Your task to perform on an android device: check out phone information Image 0: 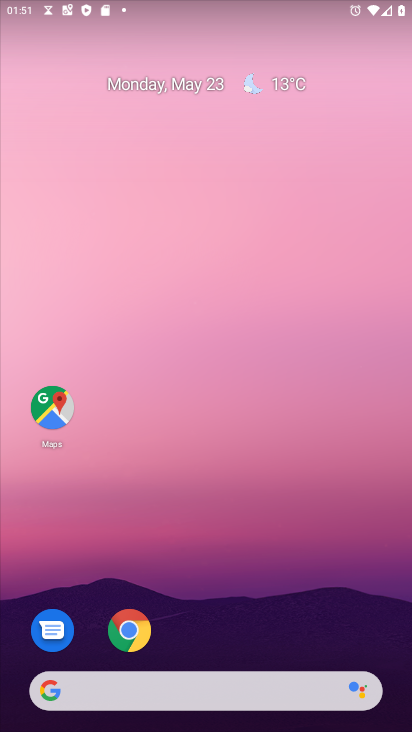
Step 0: drag from (303, 600) to (165, 21)
Your task to perform on an android device: check out phone information Image 1: 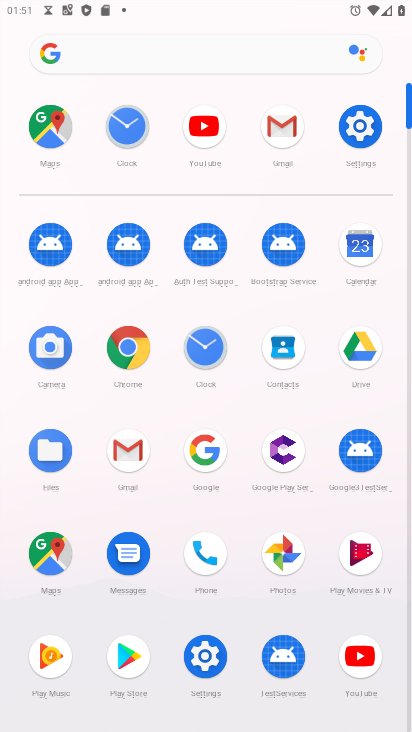
Step 1: click (201, 645)
Your task to perform on an android device: check out phone information Image 2: 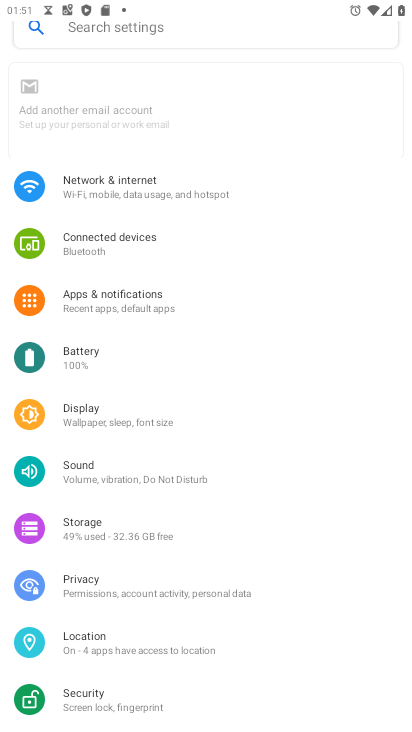
Step 2: drag from (234, 656) to (179, 56)
Your task to perform on an android device: check out phone information Image 3: 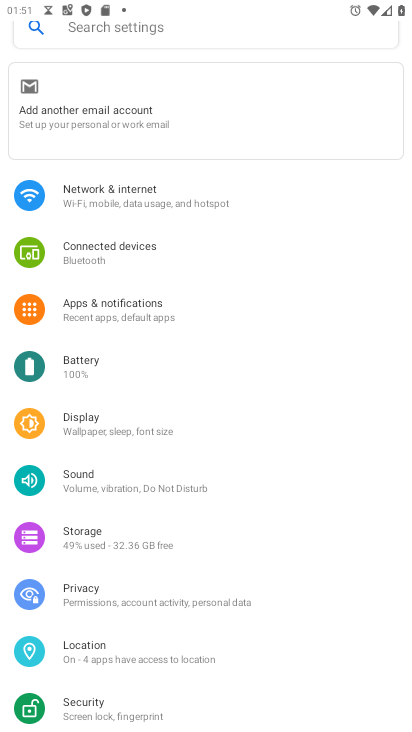
Step 3: drag from (225, 555) to (214, 131)
Your task to perform on an android device: check out phone information Image 4: 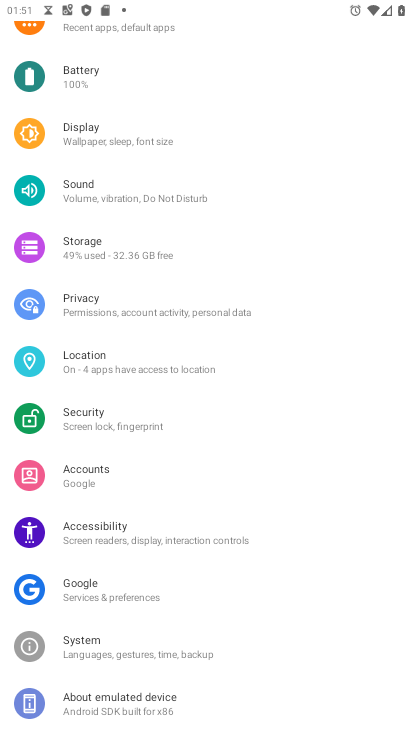
Step 4: drag from (216, 634) to (179, 91)
Your task to perform on an android device: check out phone information Image 5: 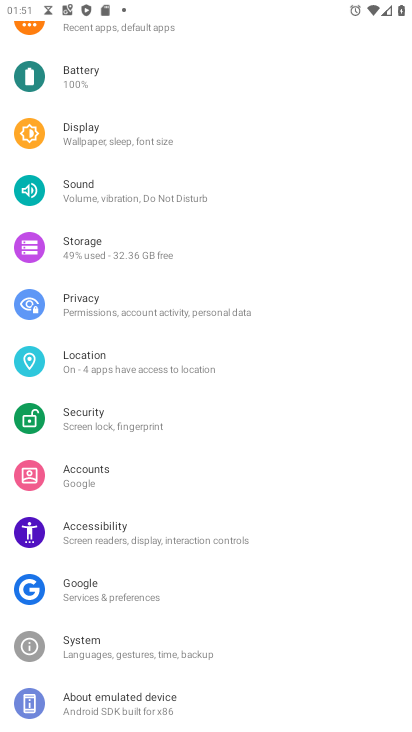
Step 5: drag from (227, 626) to (165, 206)
Your task to perform on an android device: check out phone information Image 6: 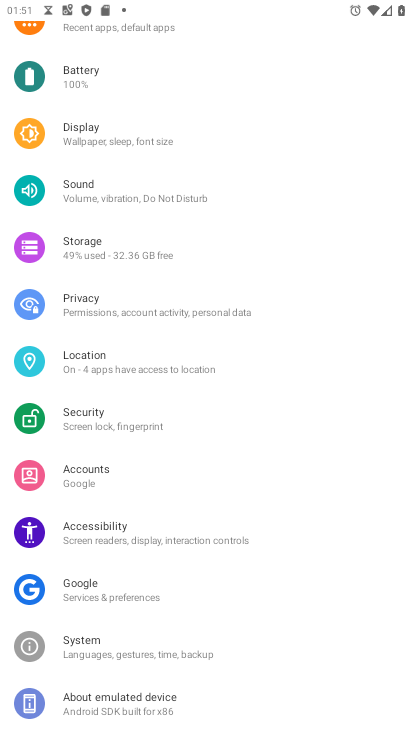
Step 6: click (136, 712)
Your task to perform on an android device: check out phone information Image 7: 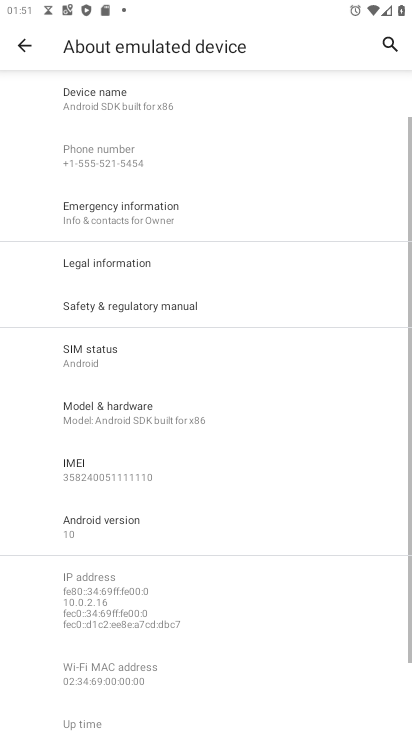
Step 7: task complete